Your task to perform on an android device: Open accessibility settings Image 0: 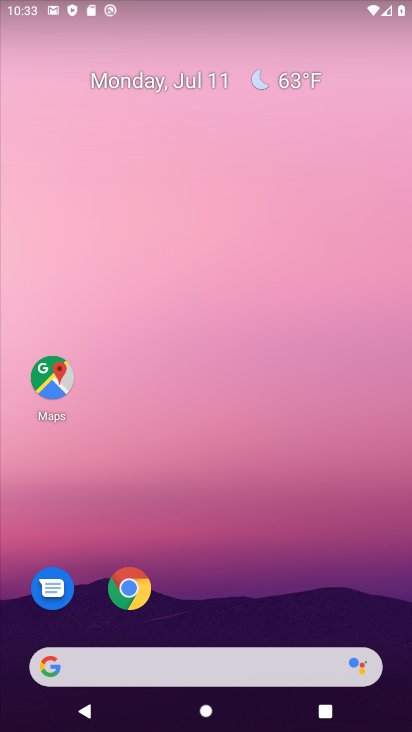
Step 0: click (229, 118)
Your task to perform on an android device: Open accessibility settings Image 1: 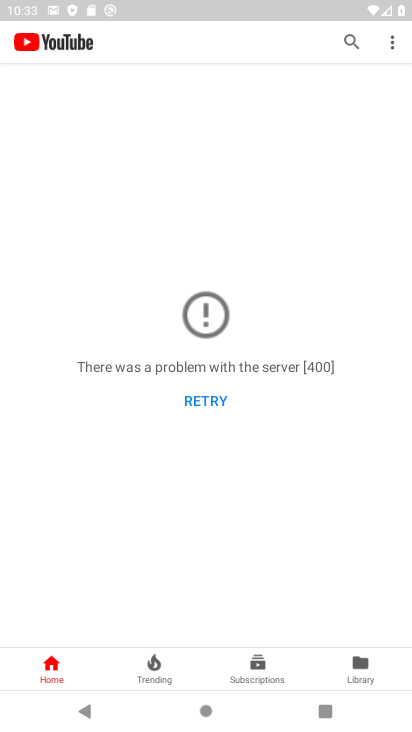
Step 1: press home button
Your task to perform on an android device: Open accessibility settings Image 2: 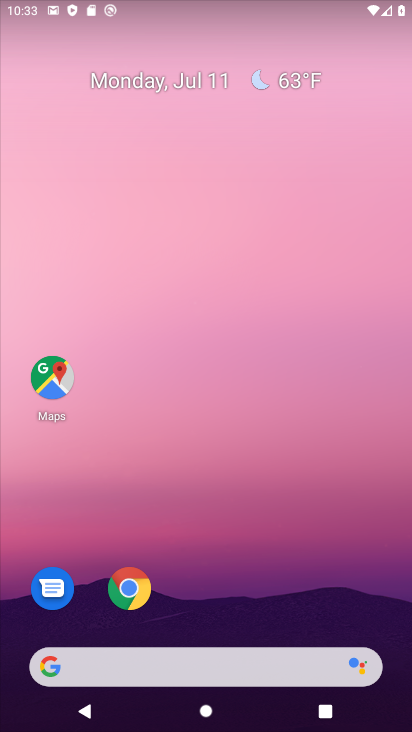
Step 2: drag from (227, 727) to (196, 210)
Your task to perform on an android device: Open accessibility settings Image 3: 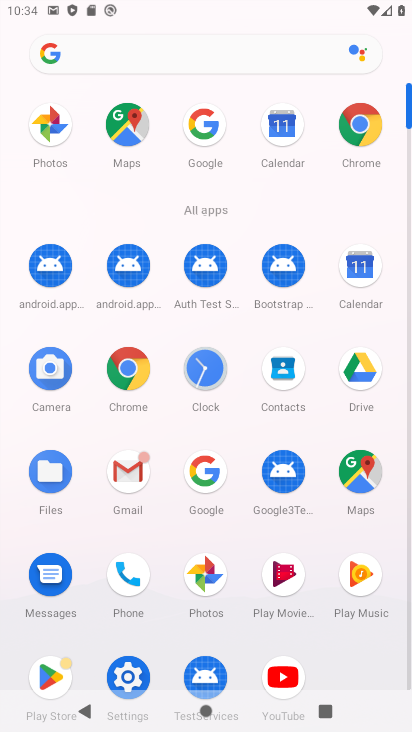
Step 3: click (140, 676)
Your task to perform on an android device: Open accessibility settings Image 4: 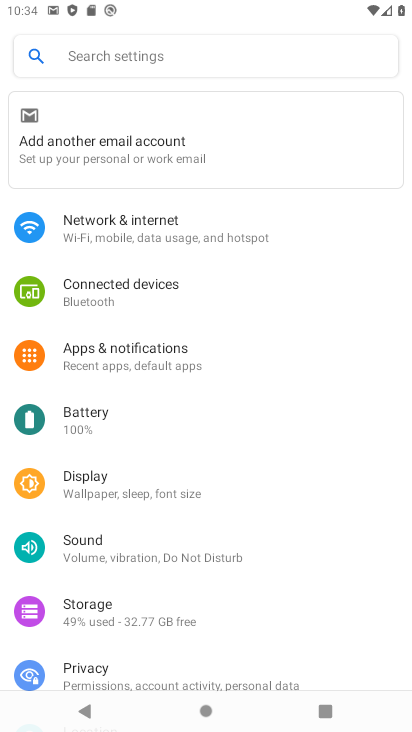
Step 4: drag from (122, 631) to (104, 275)
Your task to perform on an android device: Open accessibility settings Image 5: 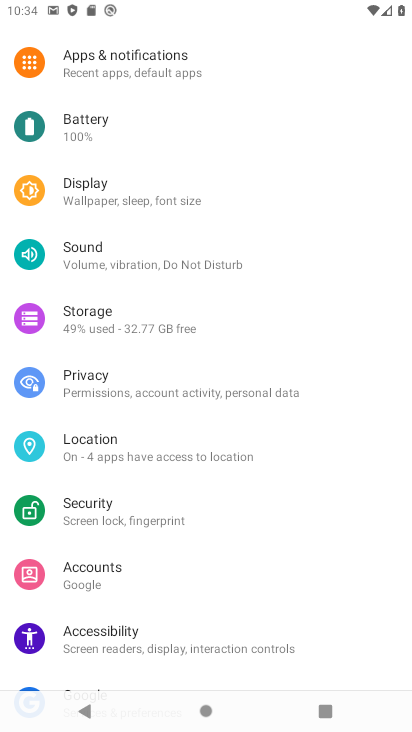
Step 5: click (121, 635)
Your task to perform on an android device: Open accessibility settings Image 6: 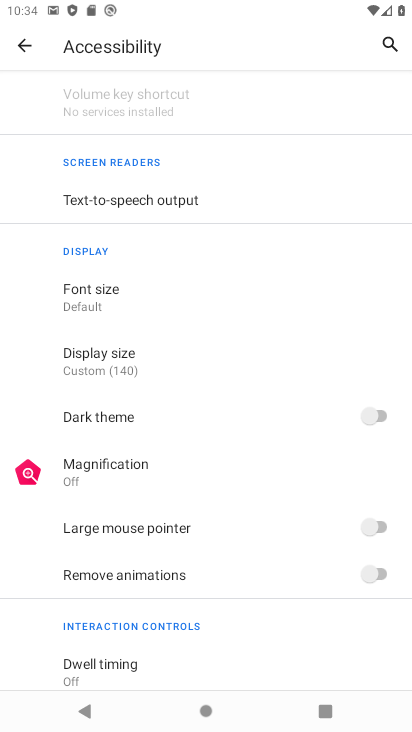
Step 6: task complete